Your task to perform on an android device: turn on airplane mode Image 0: 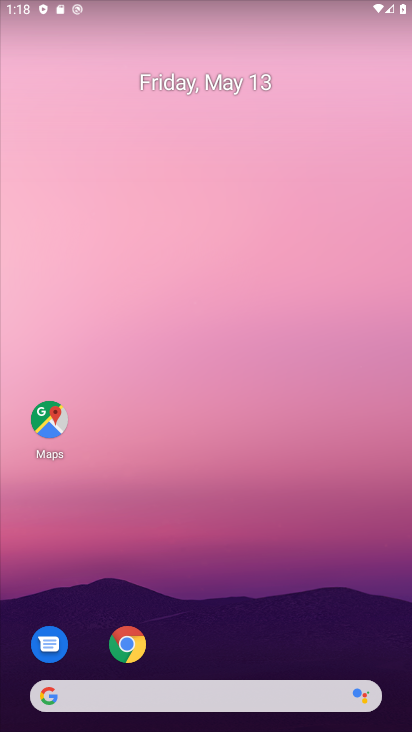
Step 0: drag from (212, 3) to (181, 384)
Your task to perform on an android device: turn on airplane mode Image 1: 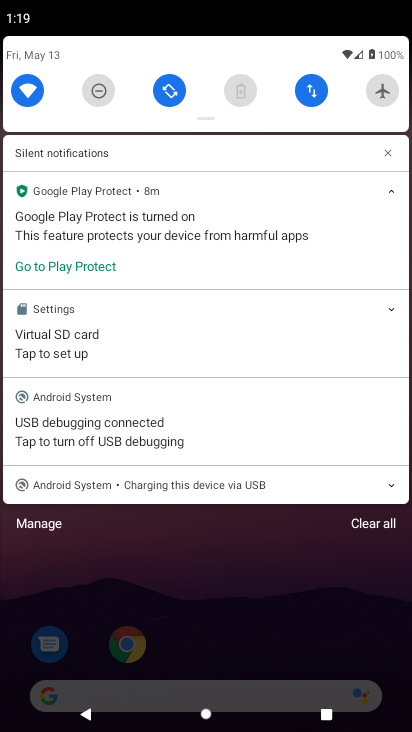
Step 1: click (373, 93)
Your task to perform on an android device: turn on airplane mode Image 2: 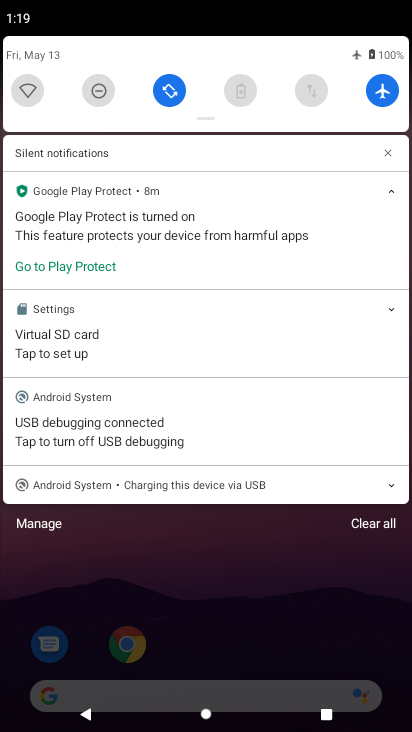
Step 2: task complete